Your task to perform on an android device: turn notification dots on Image 0: 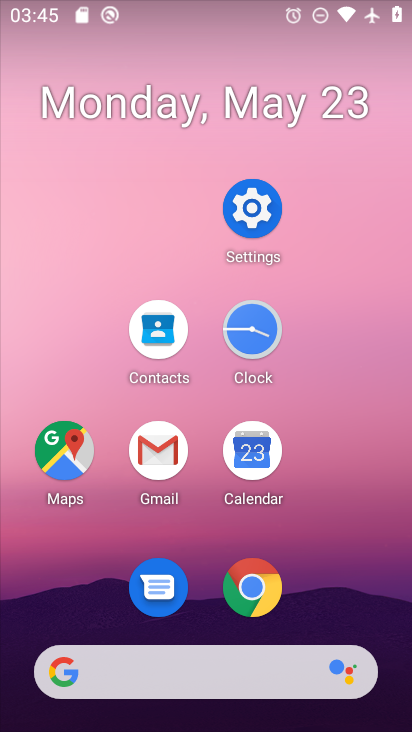
Step 0: click (264, 205)
Your task to perform on an android device: turn notification dots on Image 1: 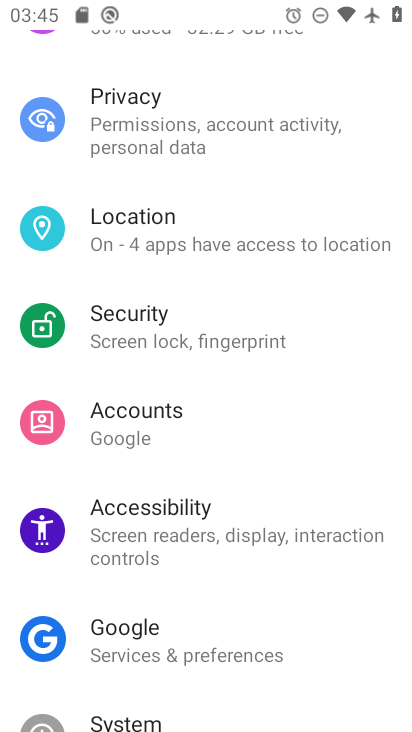
Step 1: drag from (198, 229) to (166, 689)
Your task to perform on an android device: turn notification dots on Image 2: 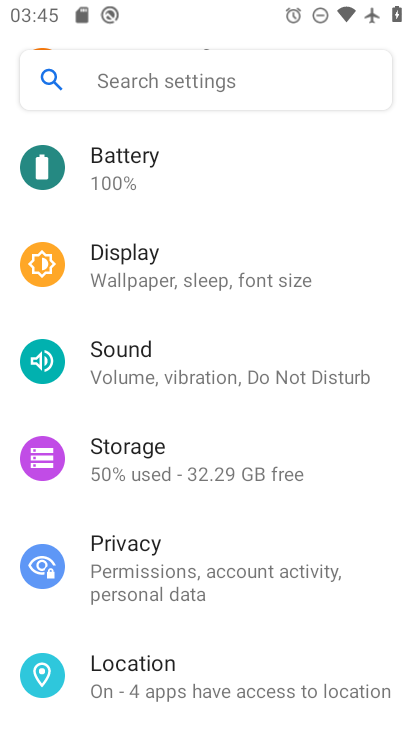
Step 2: drag from (228, 128) to (209, 565)
Your task to perform on an android device: turn notification dots on Image 3: 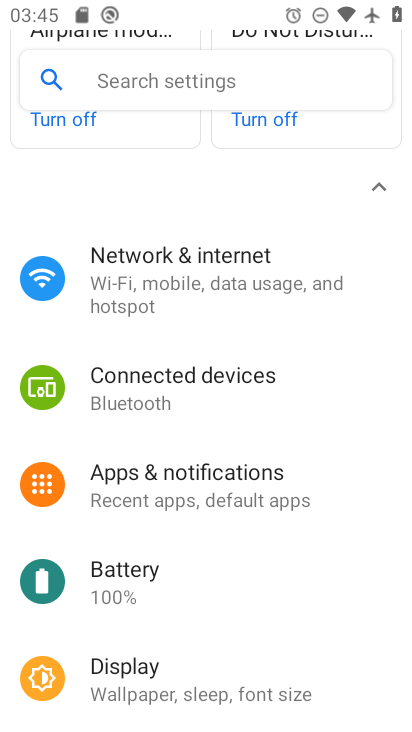
Step 3: click (230, 498)
Your task to perform on an android device: turn notification dots on Image 4: 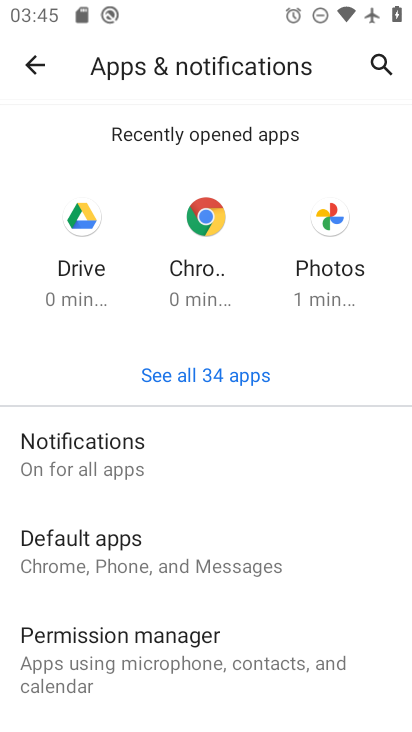
Step 4: drag from (278, 609) to (276, 260)
Your task to perform on an android device: turn notification dots on Image 5: 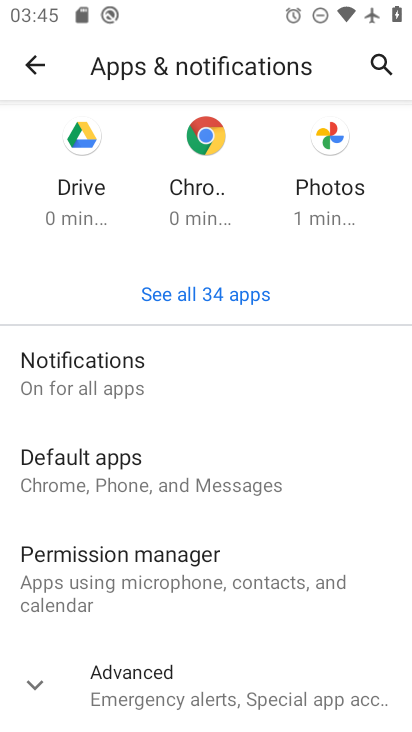
Step 5: click (238, 339)
Your task to perform on an android device: turn notification dots on Image 6: 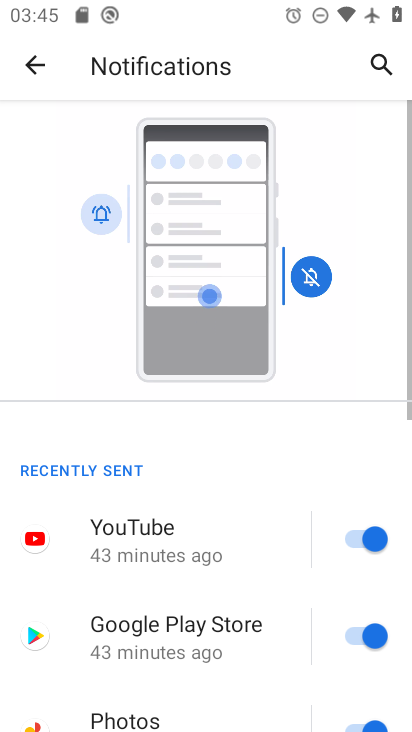
Step 6: drag from (265, 576) to (269, 197)
Your task to perform on an android device: turn notification dots on Image 7: 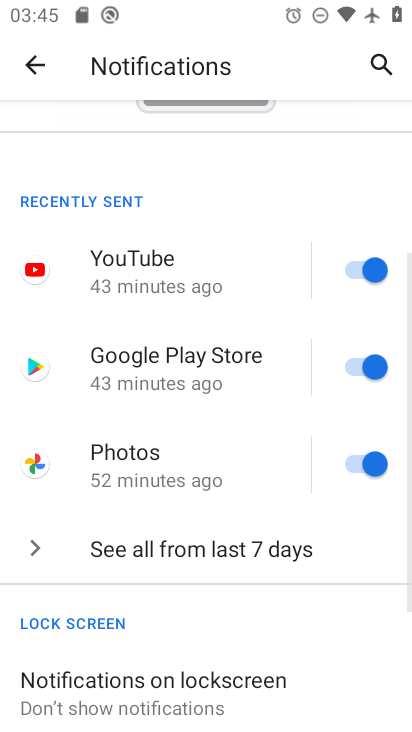
Step 7: drag from (258, 663) to (258, 368)
Your task to perform on an android device: turn notification dots on Image 8: 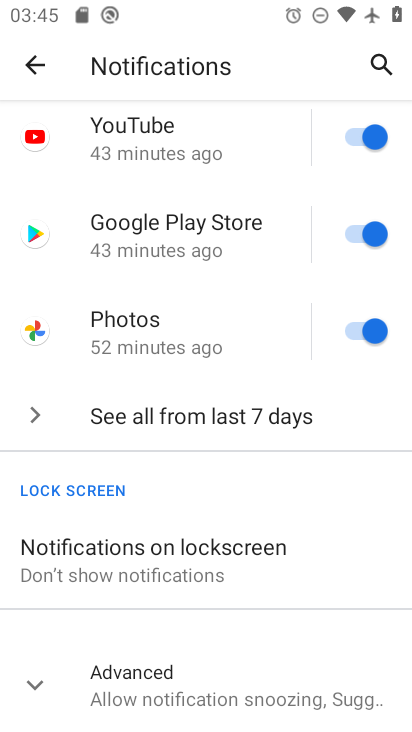
Step 8: click (140, 690)
Your task to perform on an android device: turn notification dots on Image 9: 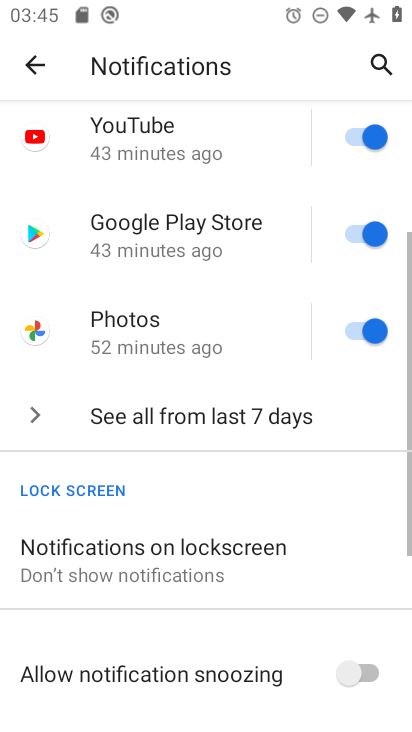
Step 9: task complete